Your task to perform on an android device: turn on data saver in the chrome app Image 0: 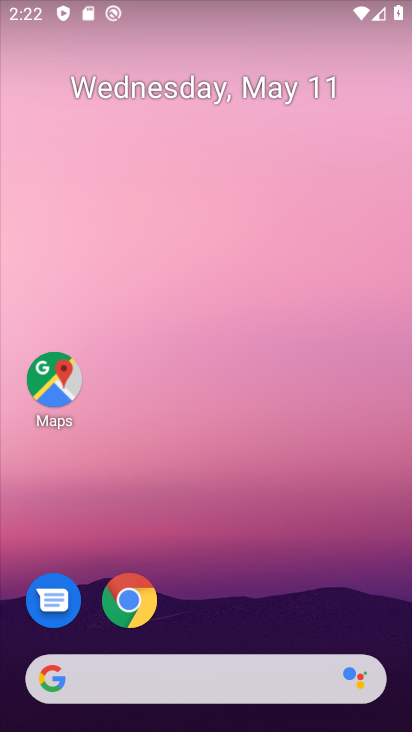
Step 0: click (129, 606)
Your task to perform on an android device: turn on data saver in the chrome app Image 1: 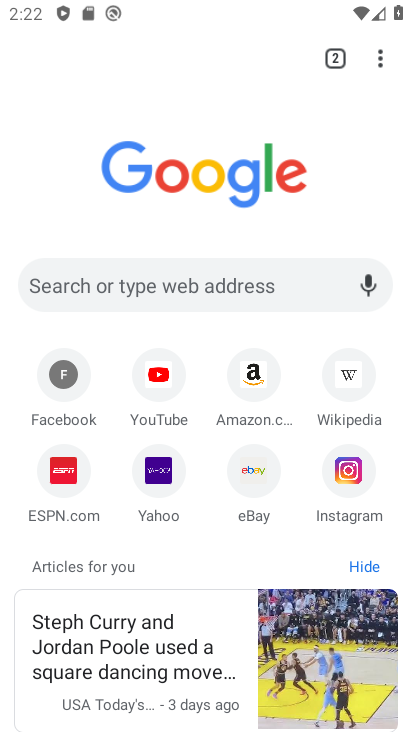
Step 1: click (378, 65)
Your task to perform on an android device: turn on data saver in the chrome app Image 2: 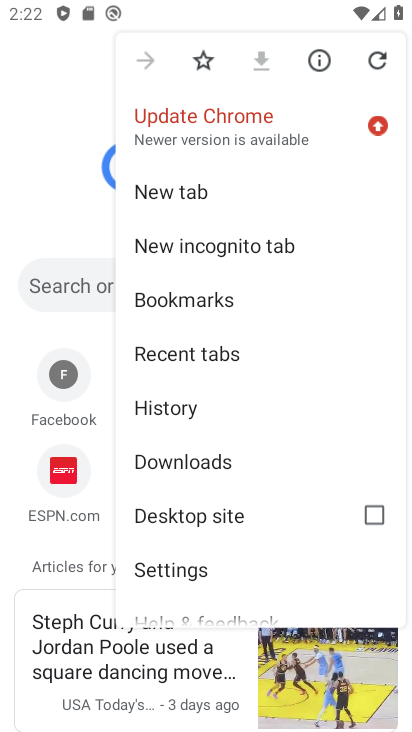
Step 2: click (193, 568)
Your task to perform on an android device: turn on data saver in the chrome app Image 3: 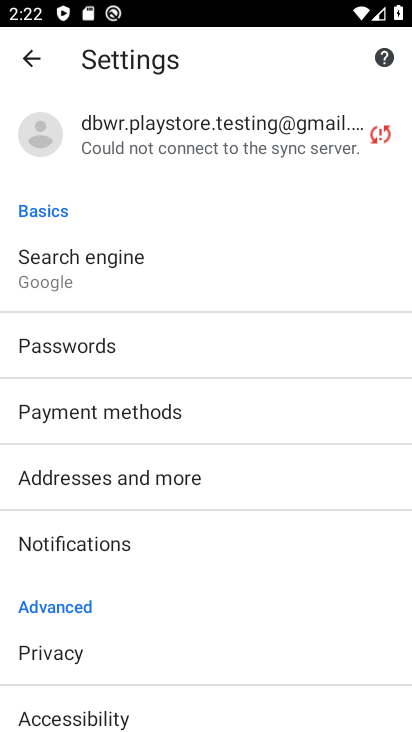
Step 3: drag from (109, 666) to (231, 187)
Your task to perform on an android device: turn on data saver in the chrome app Image 4: 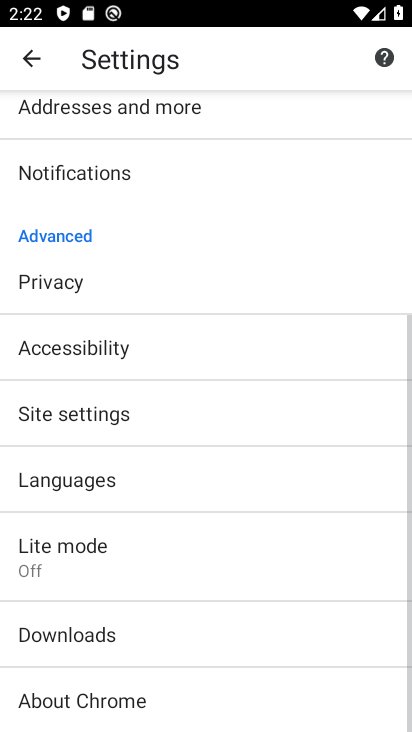
Step 4: click (96, 552)
Your task to perform on an android device: turn on data saver in the chrome app Image 5: 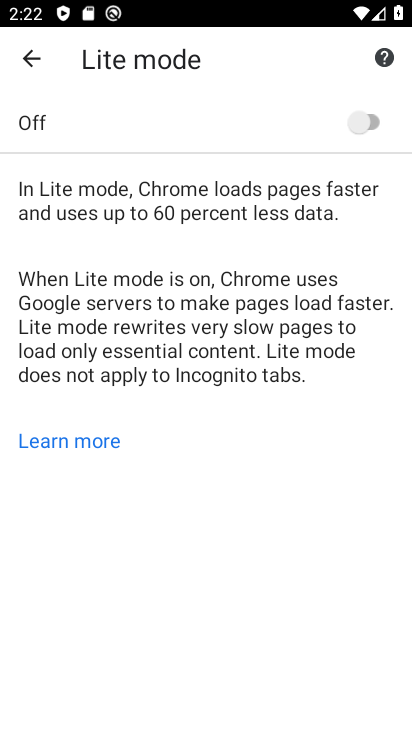
Step 5: click (363, 122)
Your task to perform on an android device: turn on data saver in the chrome app Image 6: 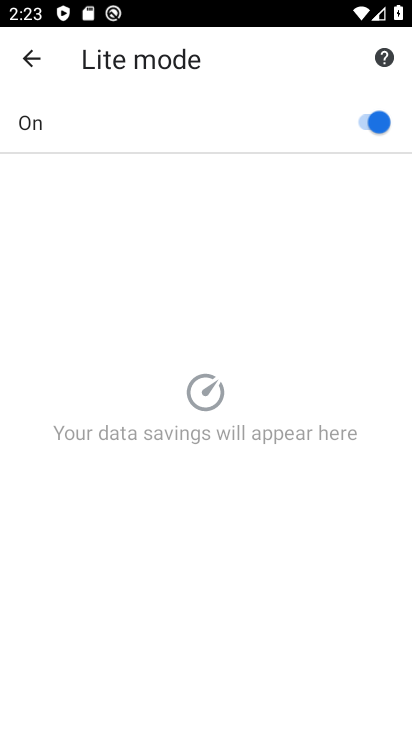
Step 6: task complete